Your task to perform on an android device: open app "Google News" (install if not already installed) Image 0: 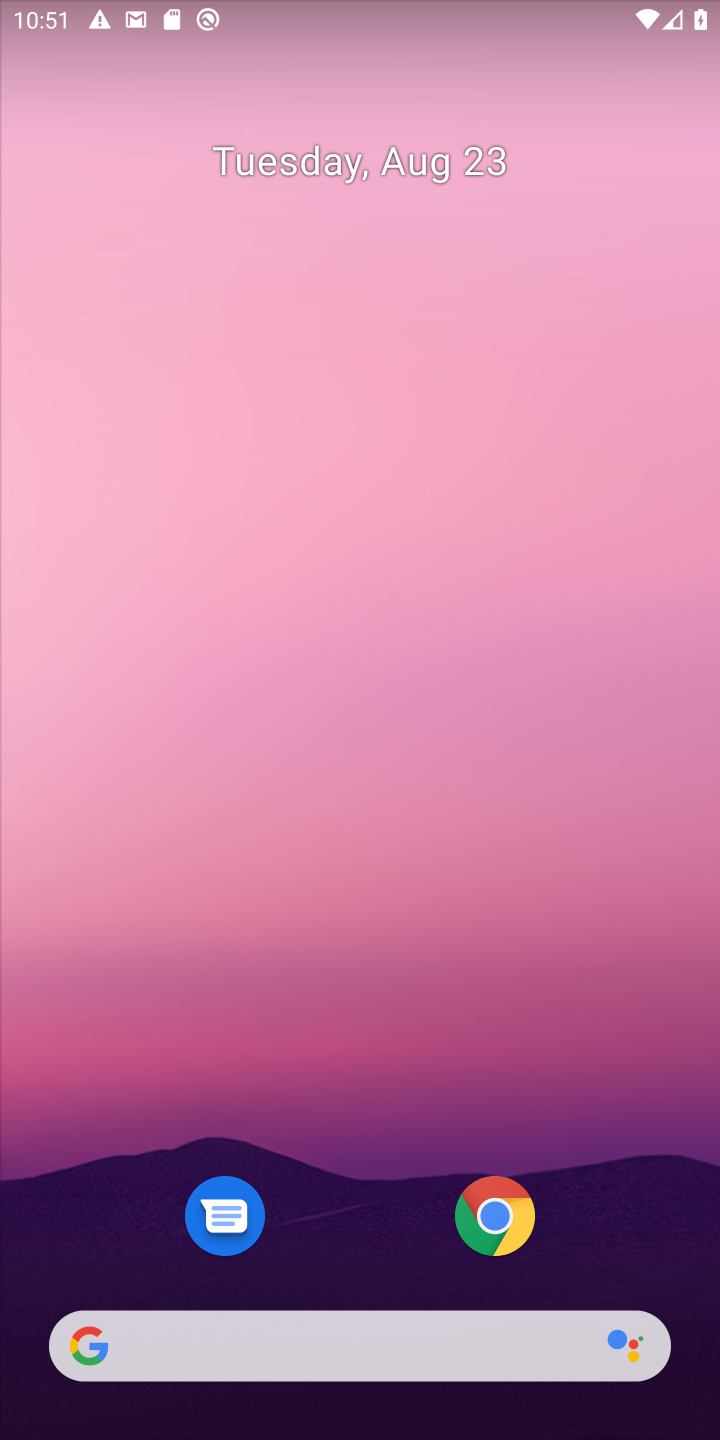
Step 0: drag from (371, 1347) to (370, 177)
Your task to perform on an android device: open app "Google News" (install if not already installed) Image 1: 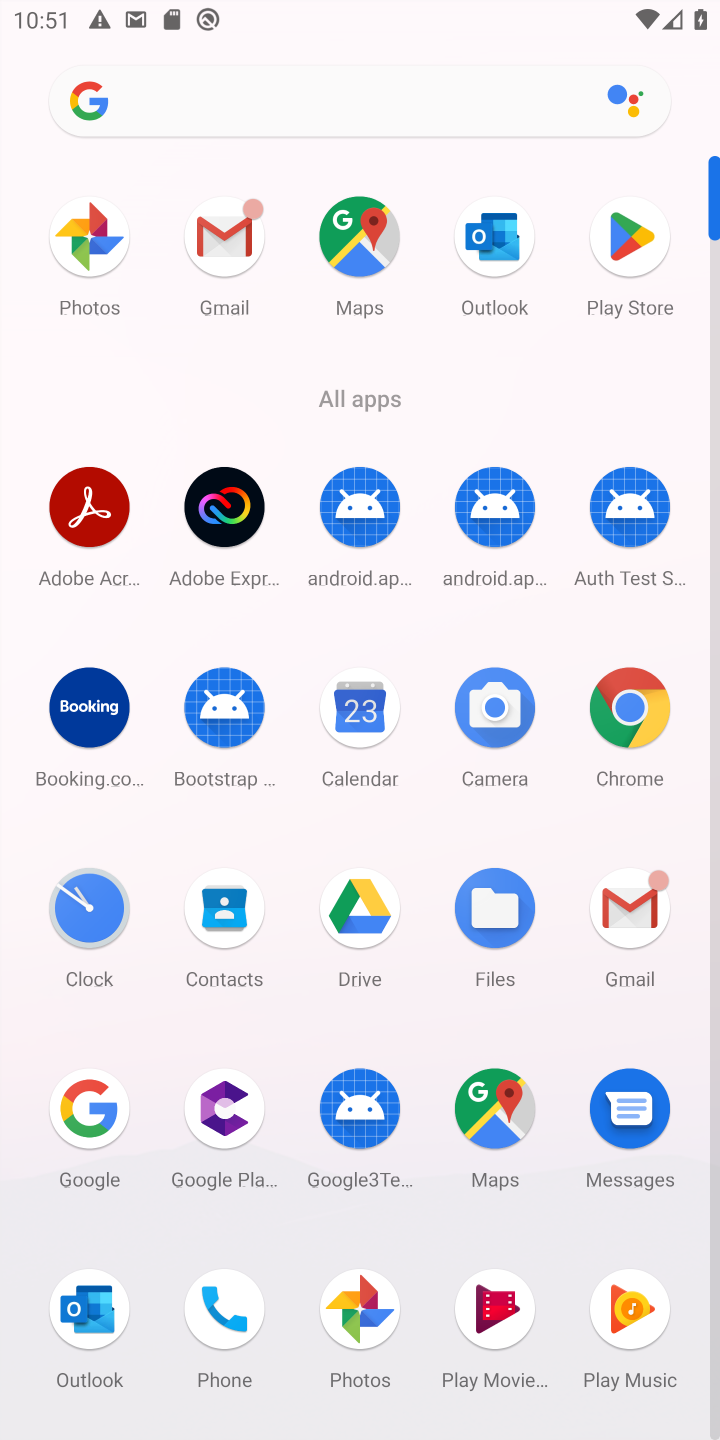
Step 1: click (635, 241)
Your task to perform on an android device: open app "Google News" (install if not already installed) Image 2: 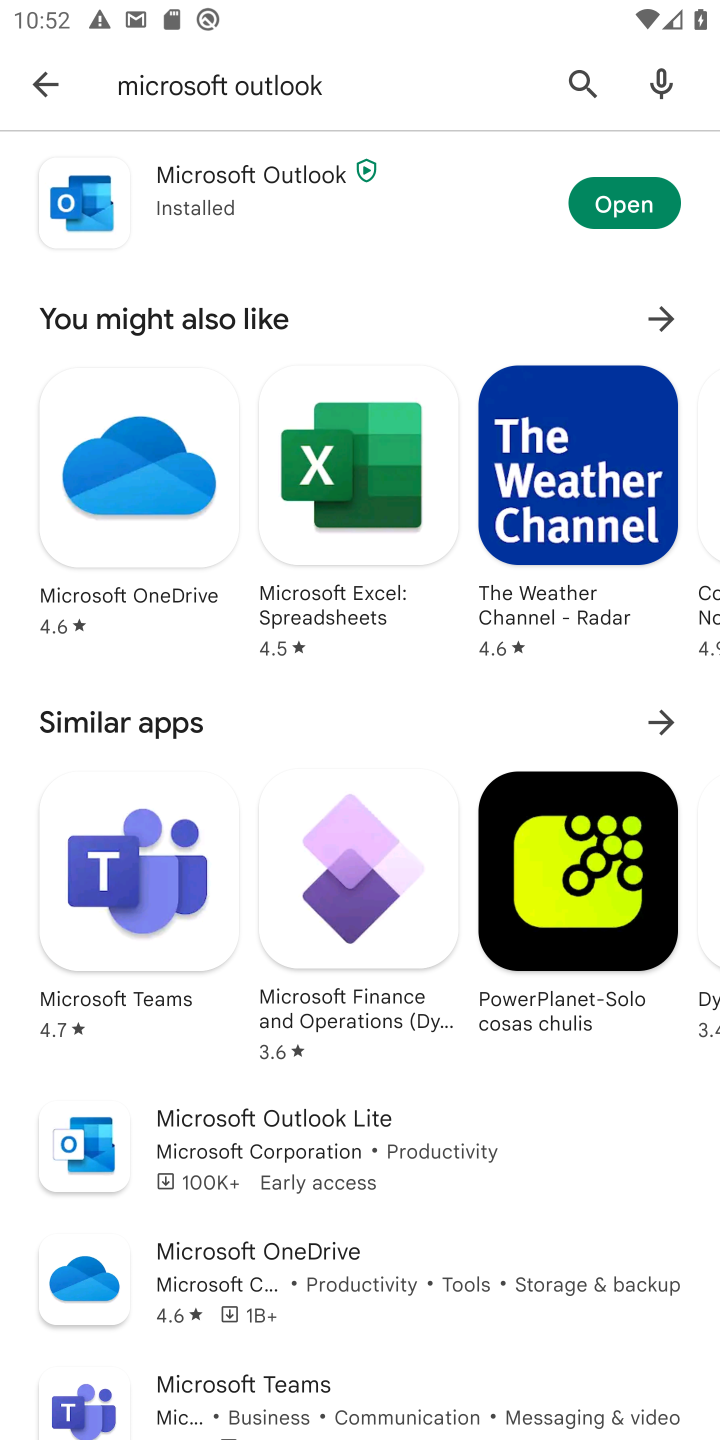
Step 2: press back button
Your task to perform on an android device: open app "Google News" (install if not already installed) Image 3: 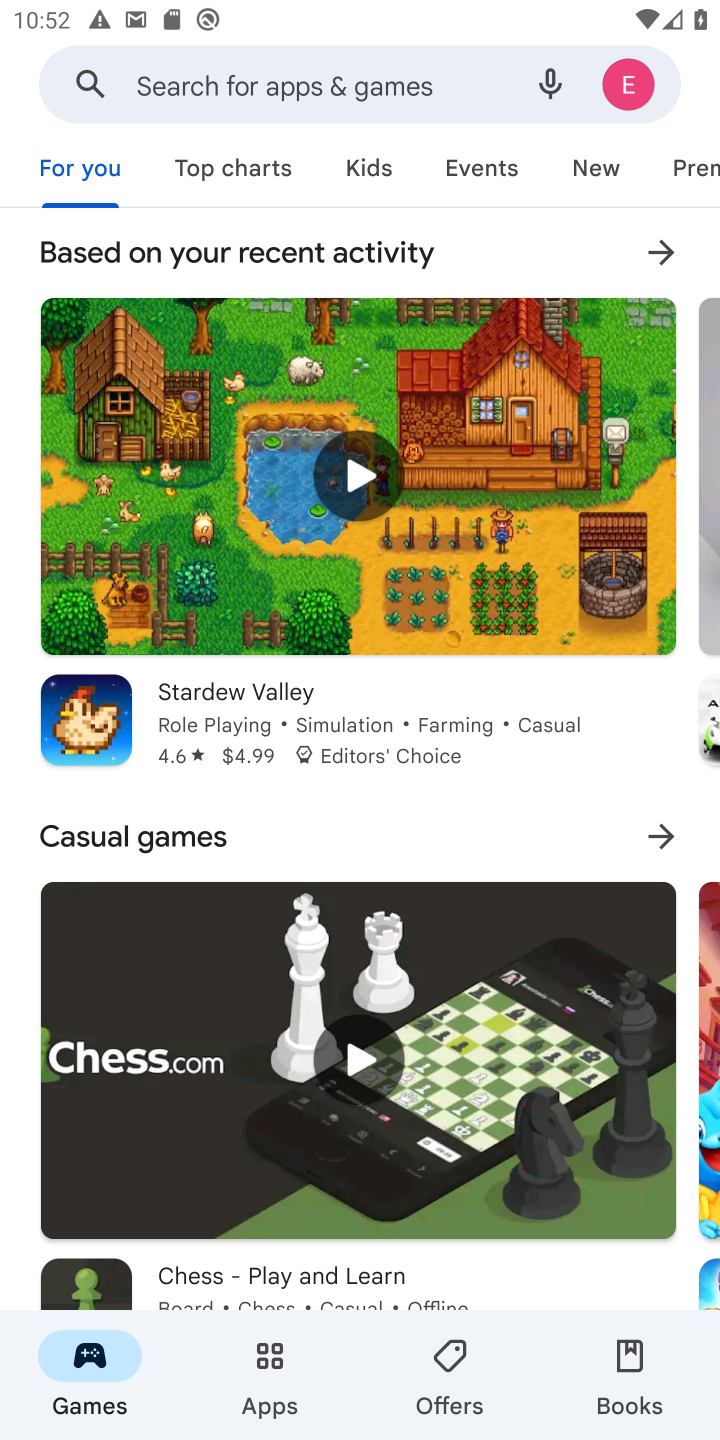
Step 3: click (332, 91)
Your task to perform on an android device: open app "Google News" (install if not already installed) Image 4: 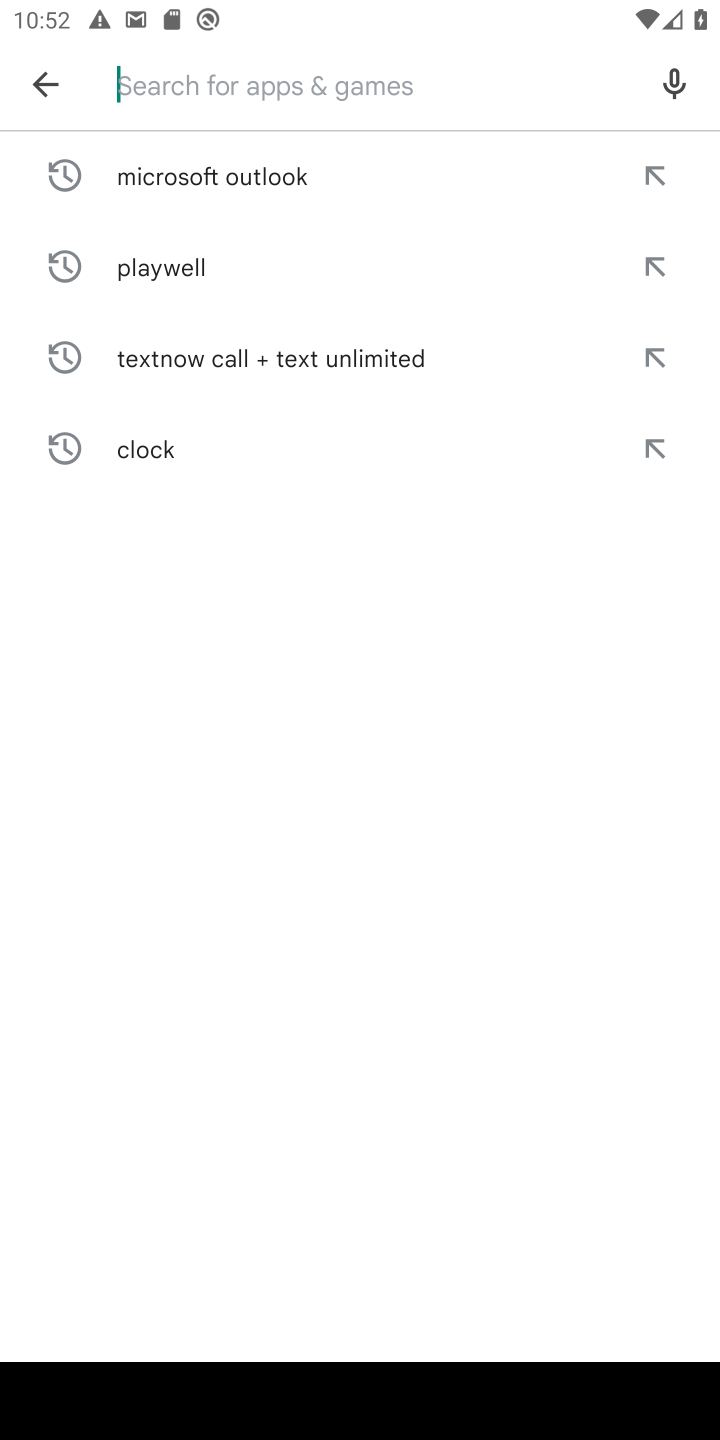
Step 4: type "Google News"
Your task to perform on an android device: open app "Google News" (install if not already installed) Image 5: 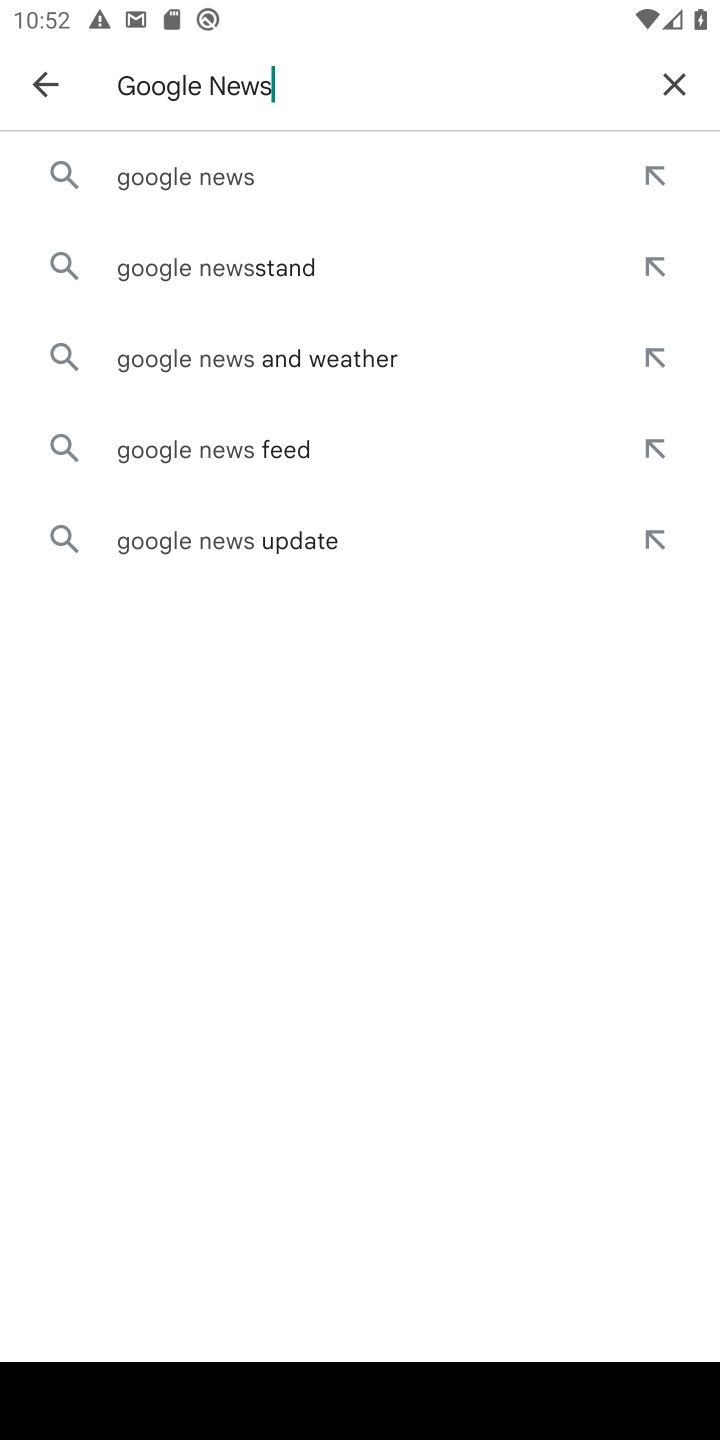
Step 5: click (221, 186)
Your task to perform on an android device: open app "Google News" (install if not already installed) Image 6: 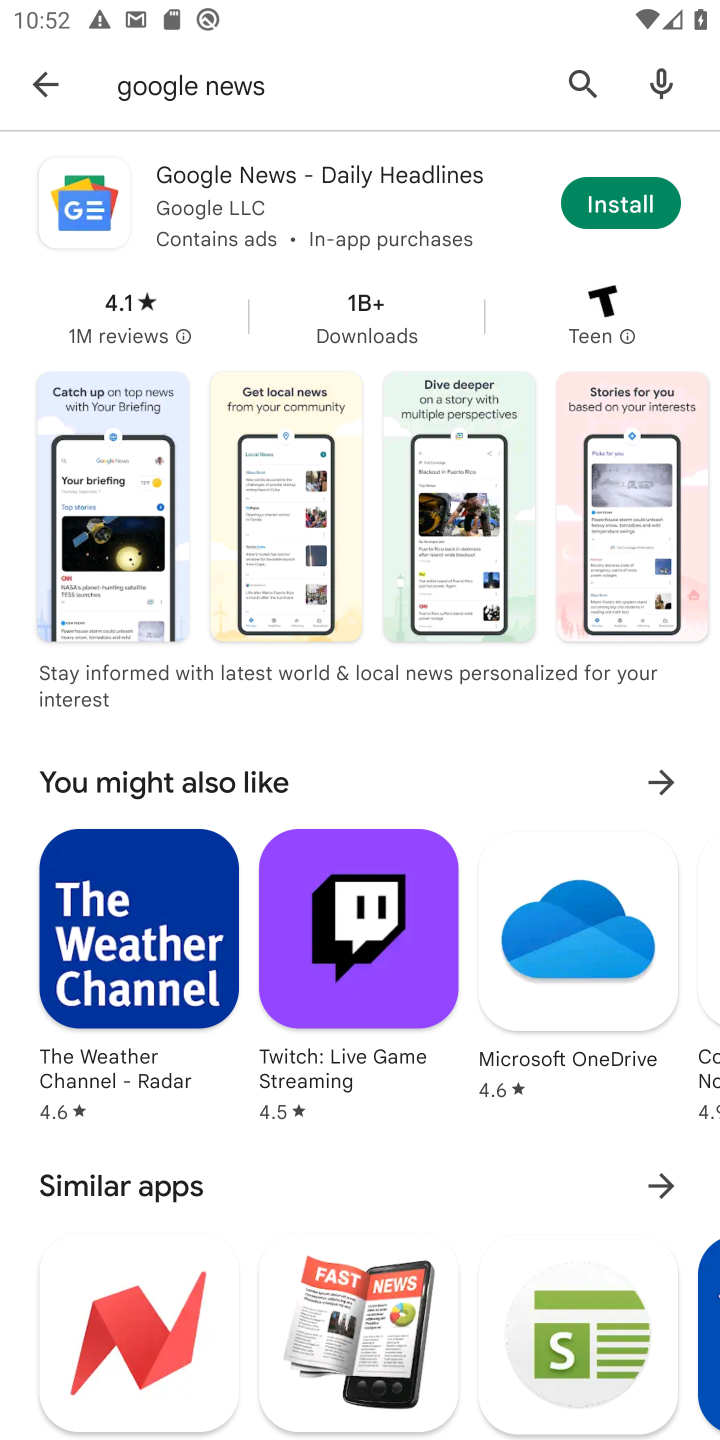
Step 6: click (615, 211)
Your task to perform on an android device: open app "Google News" (install if not already installed) Image 7: 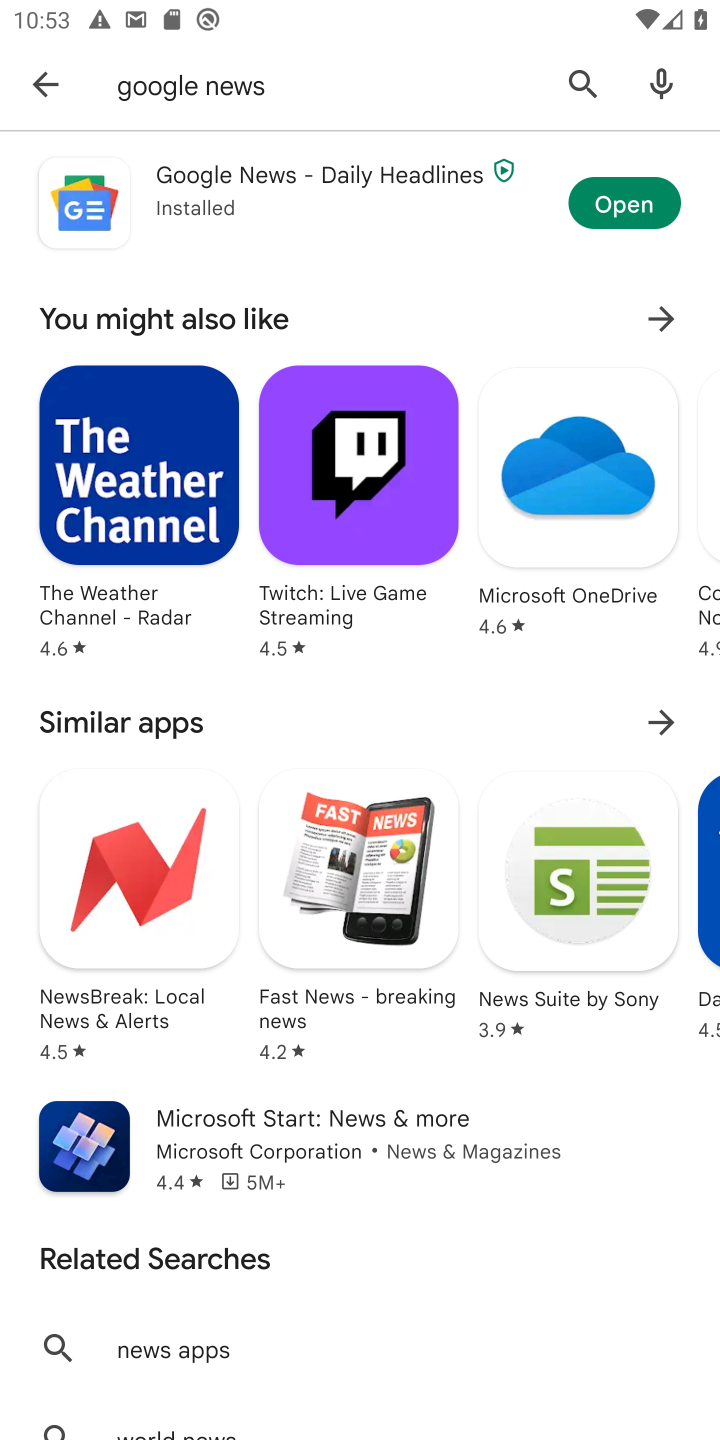
Step 7: click (626, 213)
Your task to perform on an android device: open app "Google News" (install if not already installed) Image 8: 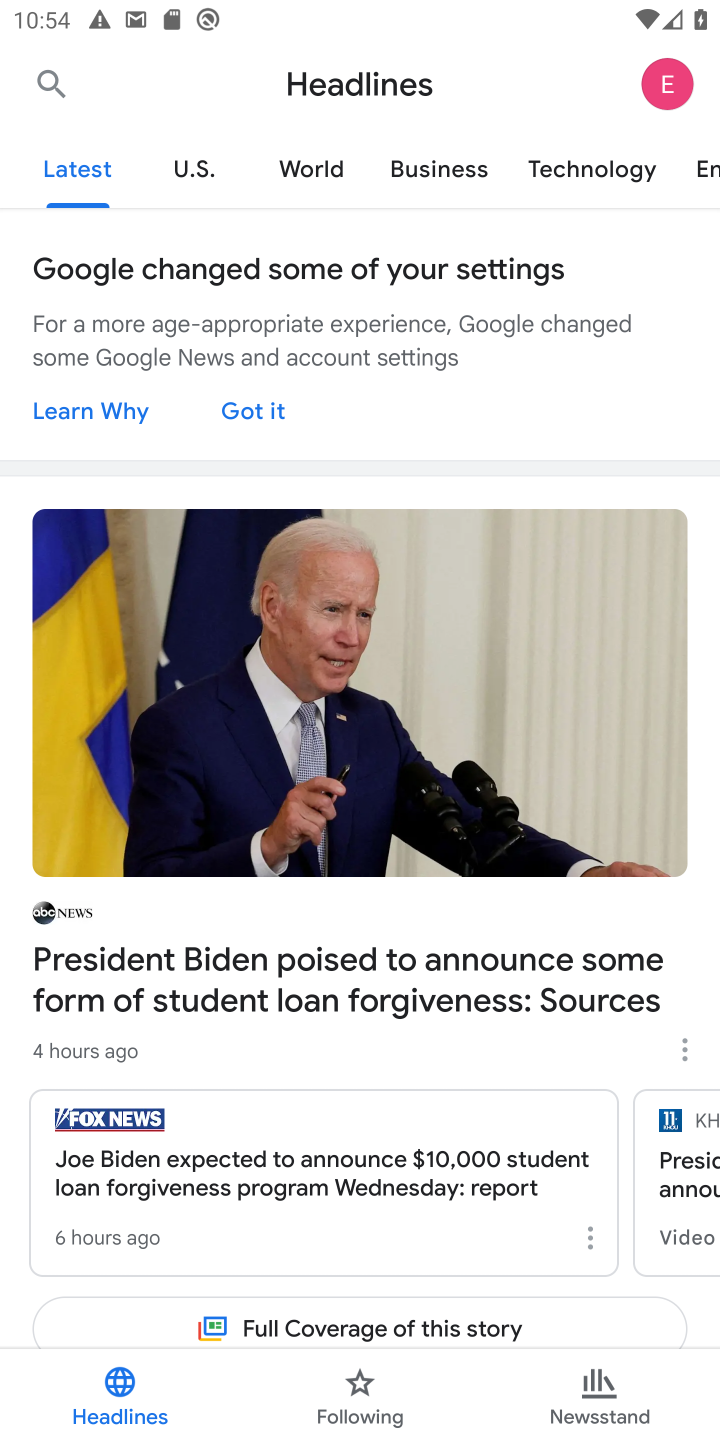
Step 8: task complete